Your task to perform on an android device: Play the last video I watched on Youtube Image 0: 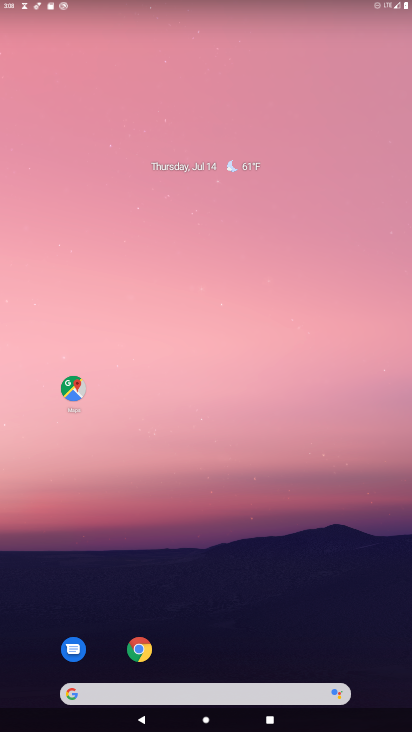
Step 0: drag from (300, 643) to (332, 8)
Your task to perform on an android device: Play the last video I watched on Youtube Image 1: 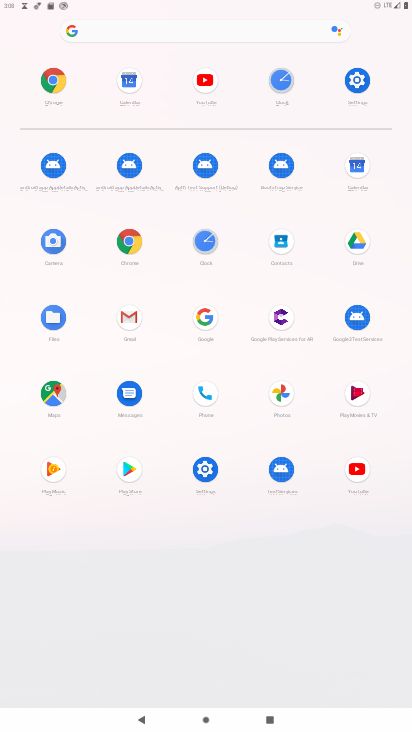
Step 1: click (355, 458)
Your task to perform on an android device: Play the last video I watched on Youtube Image 2: 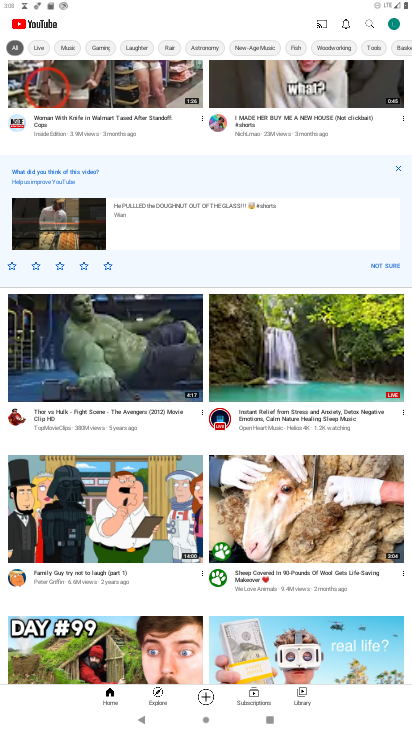
Step 2: click (297, 692)
Your task to perform on an android device: Play the last video I watched on Youtube Image 3: 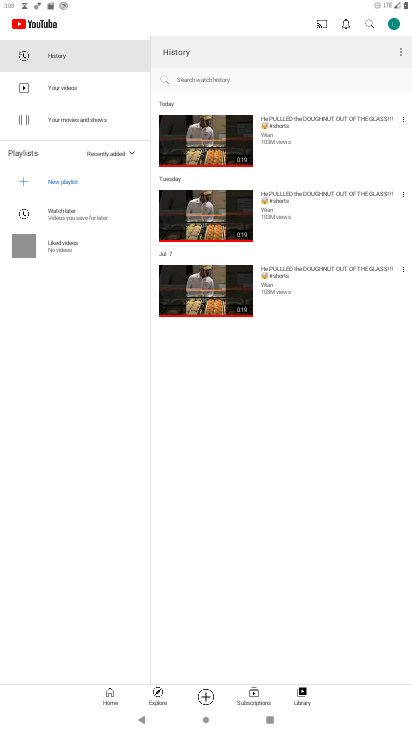
Step 3: click (234, 147)
Your task to perform on an android device: Play the last video I watched on Youtube Image 4: 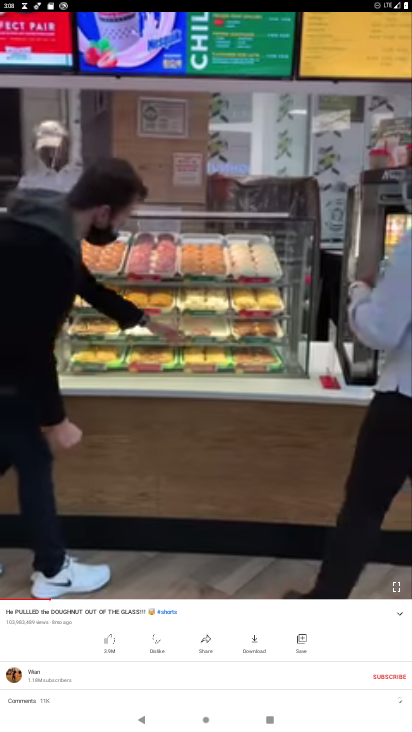
Step 4: task complete